Your task to perform on an android device: snooze an email in the gmail app Image 0: 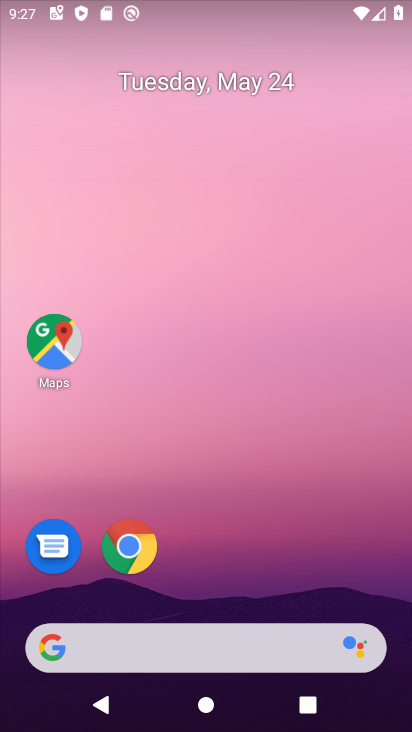
Step 0: drag from (185, 623) to (229, 382)
Your task to perform on an android device: snooze an email in the gmail app Image 1: 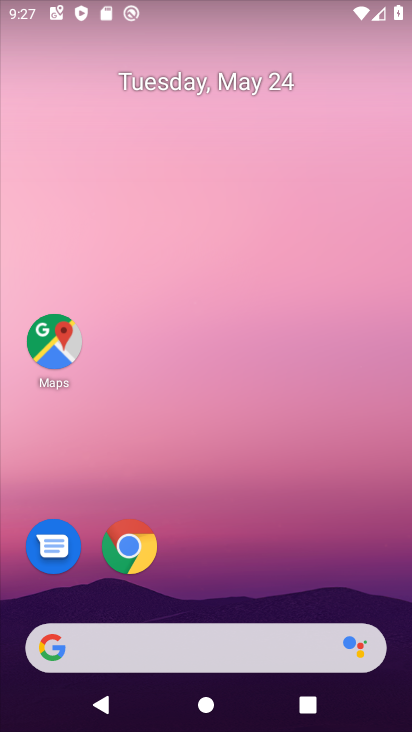
Step 1: drag from (223, 625) to (259, 248)
Your task to perform on an android device: snooze an email in the gmail app Image 2: 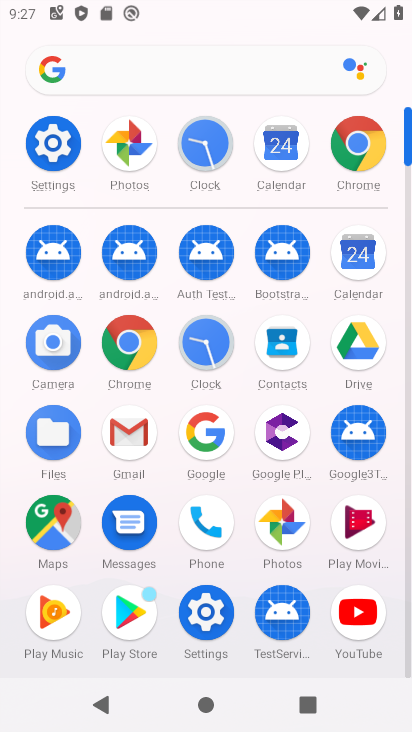
Step 2: click (135, 434)
Your task to perform on an android device: snooze an email in the gmail app Image 3: 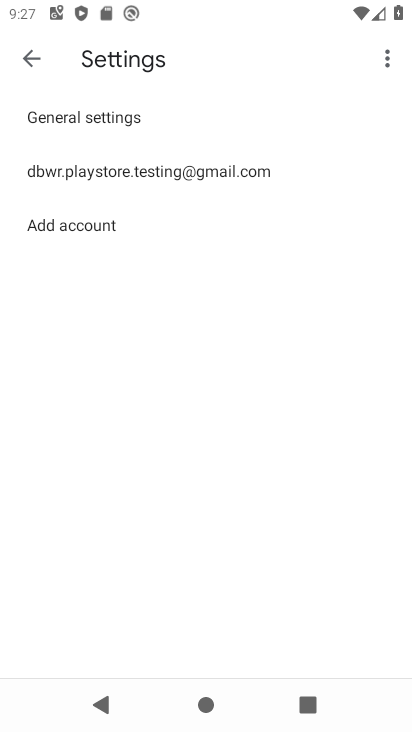
Step 3: click (32, 57)
Your task to perform on an android device: snooze an email in the gmail app Image 4: 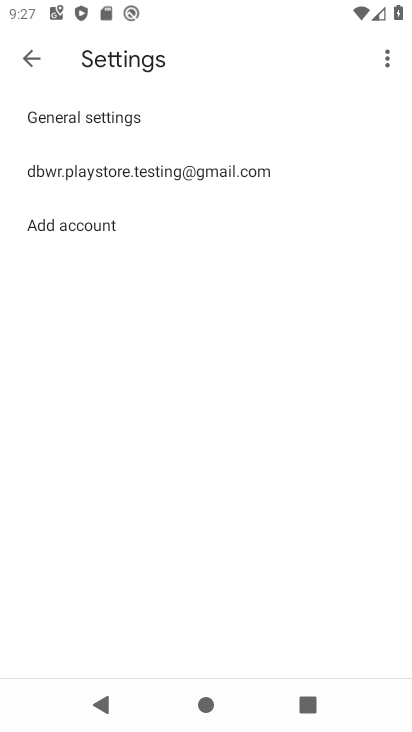
Step 4: click (29, 61)
Your task to perform on an android device: snooze an email in the gmail app Image 5: 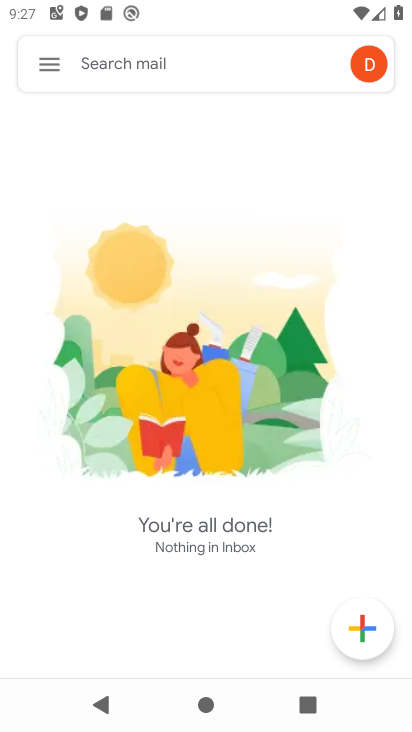
Step 5: click (44, 66)
Your task to perform on an android device: snooze an email in the gmail app Image 6: 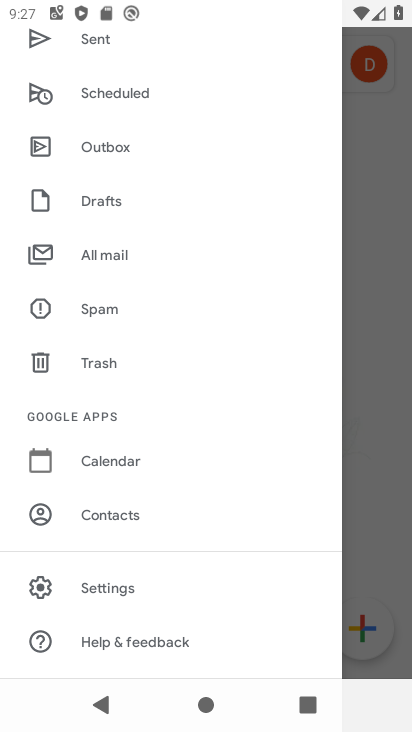
Step 6: drag from (103, 61) to (92, 479)
Your task to perform on an android device: snooze an email in the gmail app Image 7: 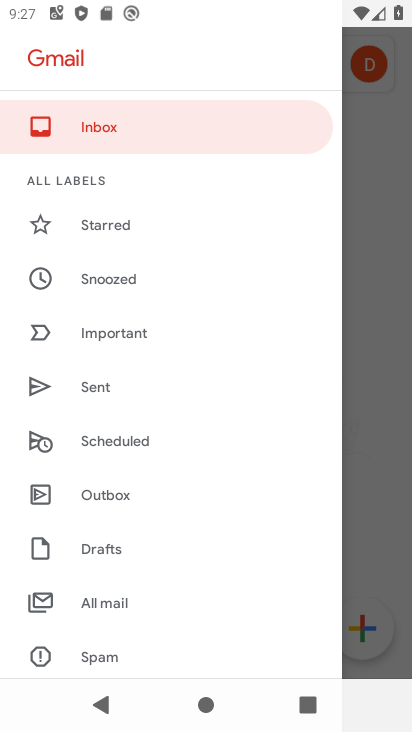
Step 7: click (115, 282)
Your task to perform on an android device: snooze an email in the gmail app Image 8: 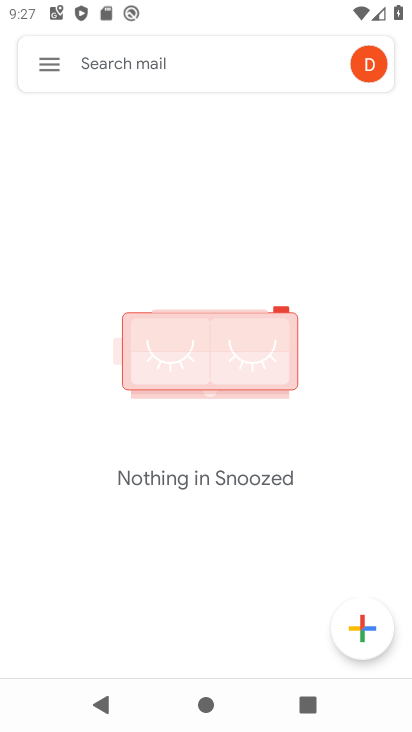
Step 8: task complete